Your task to perform on an android device: open chrome privacy settings Image 0: 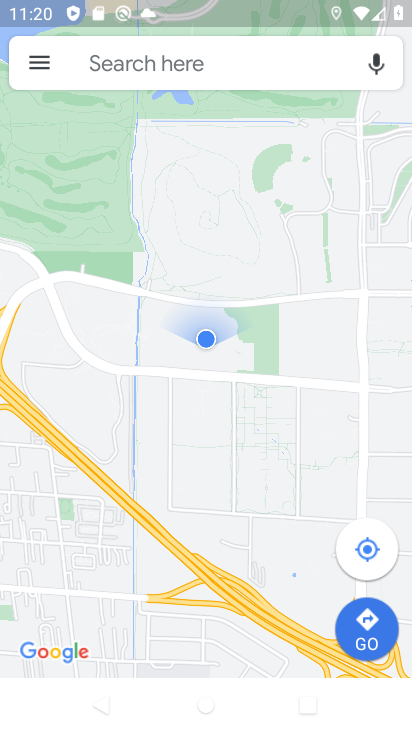
Step 0: press home button
Your task to perform on an android device: open chrome privacy settings Image 1: 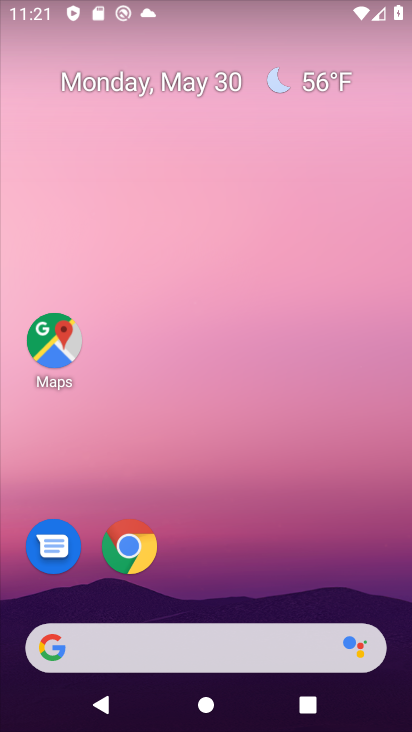
Step 1: click (130, 545)
Your task to perform on an android device: open chrome privacy settings Image 2: 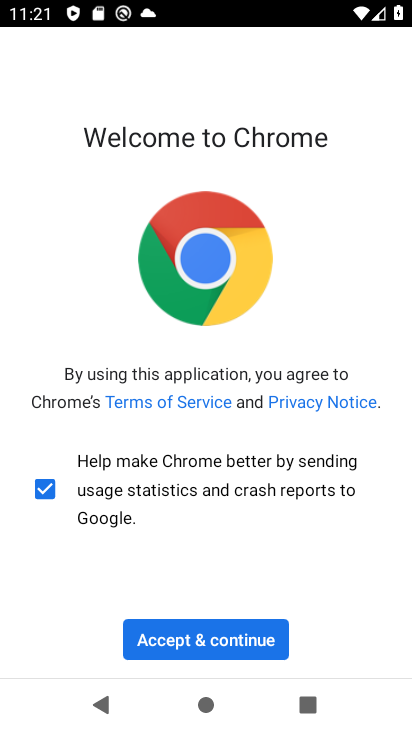
Step 2: click (198, 641)
Your task to perform on an android device: open chrome privacy settings Image 3: 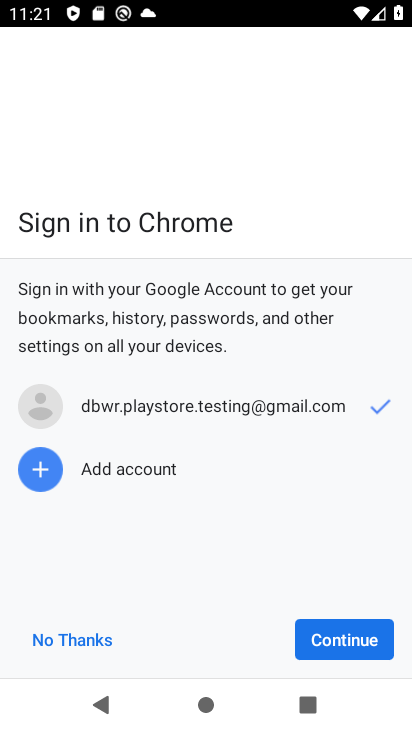
Step 3: click (337, 638)
Your task to perform on an android device: open chrome privacy settings Image 4: 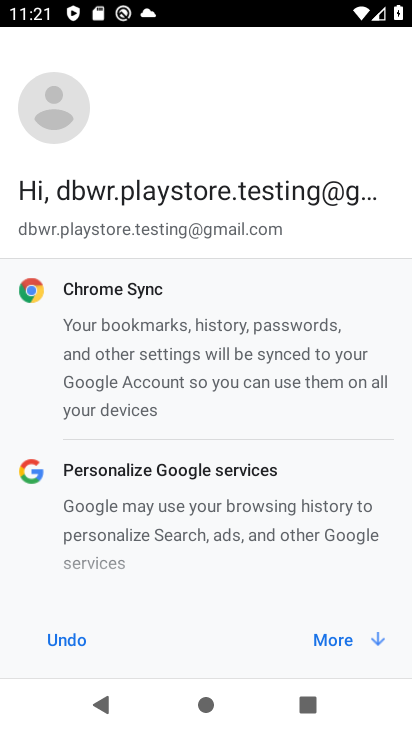
Step 4: click (337, 638)
Your task to perform on an android device: open chrome privacy settings Image 5: 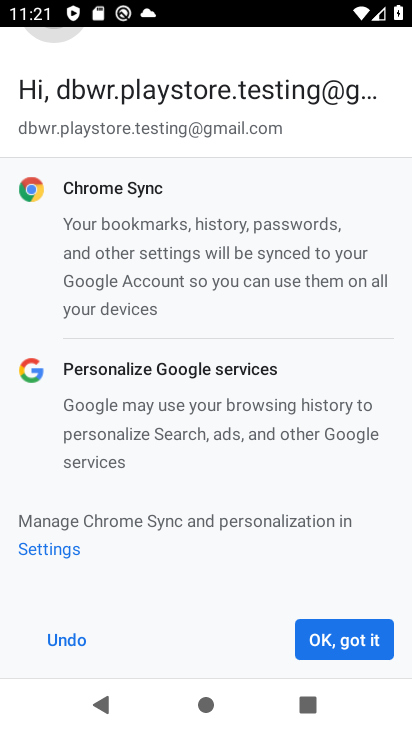
Step 5: click (337, 638)
Your task to perform on an android device: open chrome privacy settings Image 6: 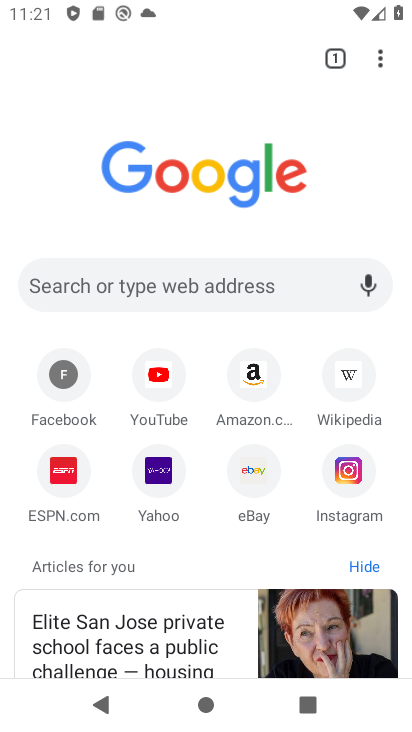
Step 6: click (381, 59)
Your task to perform on an android device: open chrome privacy settings Image 7: 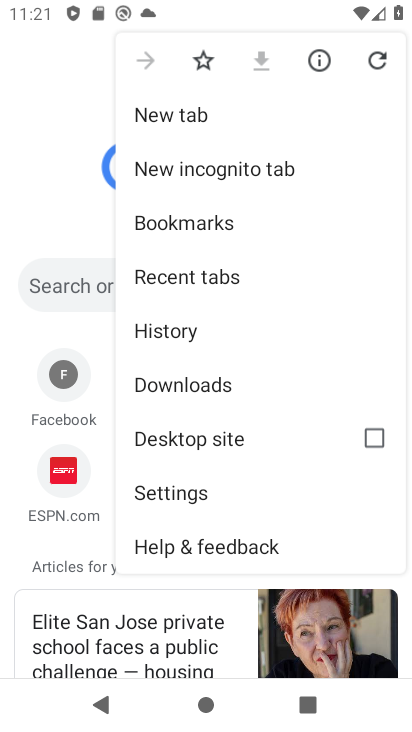
Step 7: click (189, 497)
Your task to perform on an android device: open chrome privacy settings Image 8: 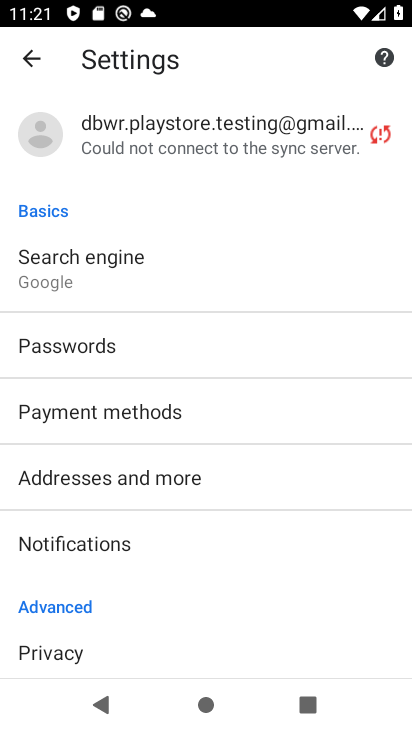
Step 8: drag from (138, 579) to (183, 490)
Your task to perform on an android device: open chrome privacy settings Image 9: 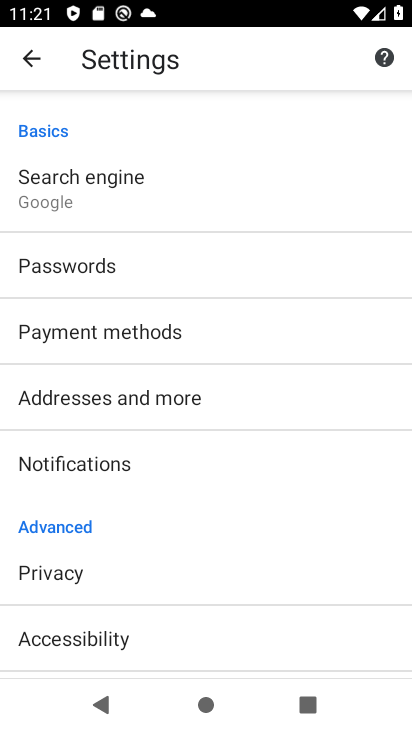
Step 9: click (83, 574)
Your task to perform on an android device: open chrome privacy settings Image 10: 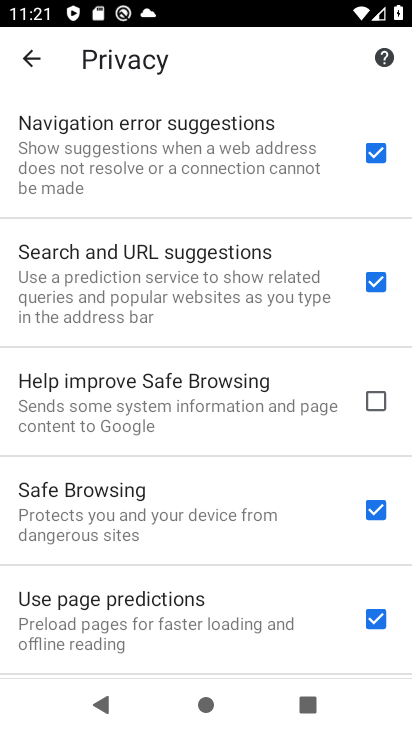
Step 10: task complete